Your task to perform on an android device: toggle priority inbox in the gmail app Image 0: 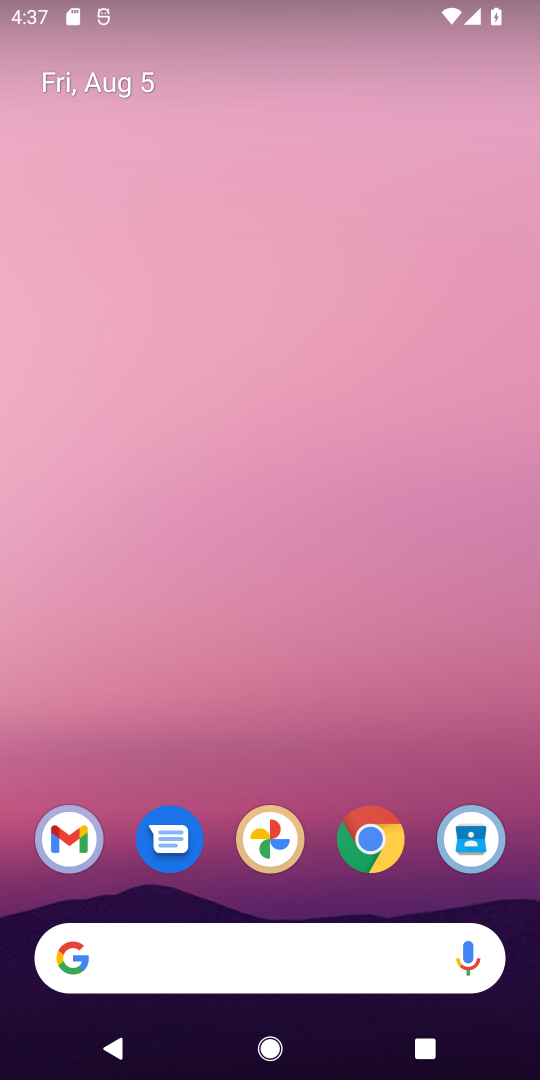
Step 0: click (83, 848)
Your task to perform on an android device: toggle priority inbox in the gmail app Image 1: 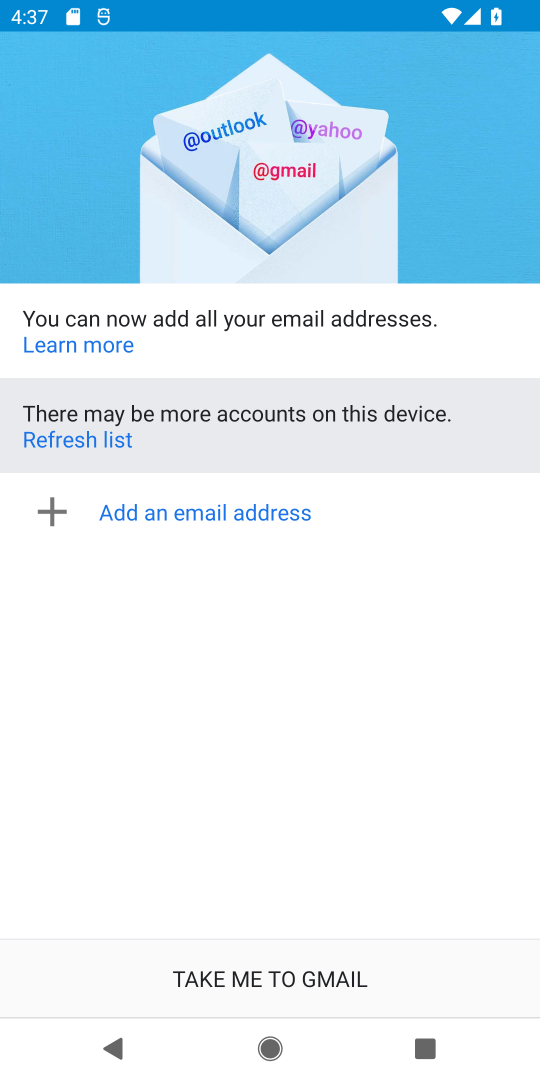
Step 1: click (316, 957)
Your task to perform on an android device: toggle priority inbox in the gmail app Image 2: 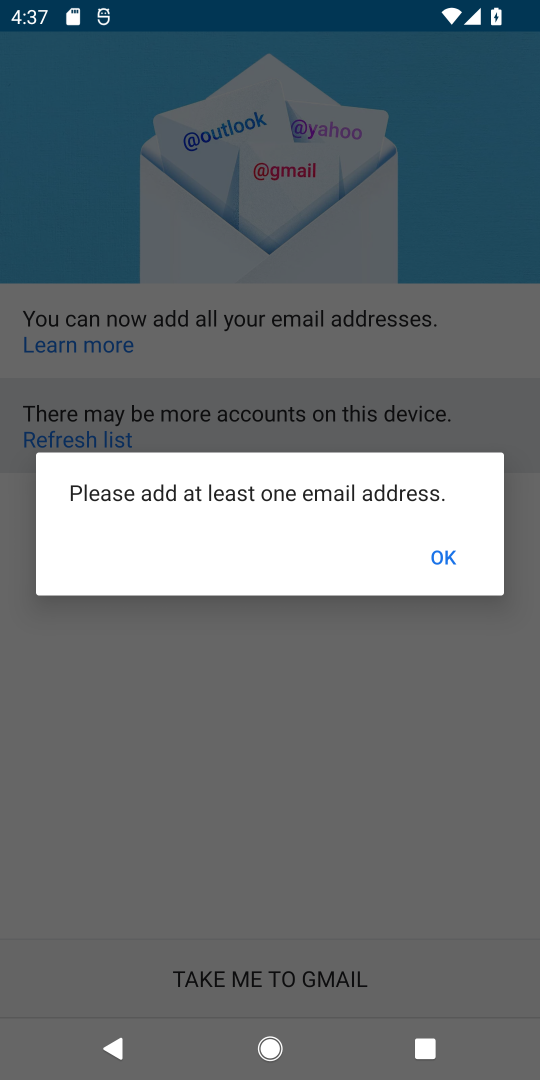
Step 2: click (463, 564)
Your task to perform on an android device: toggle priority inbox in the gmail app Image 3: 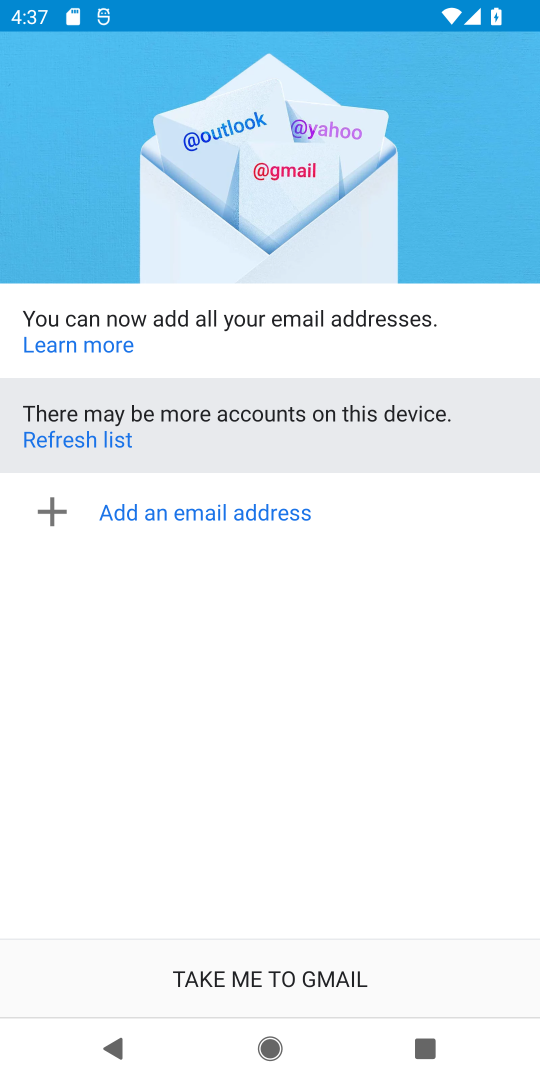
Step 3: task complete